Your task to perform on an android device: all mails in gmail Image 0: 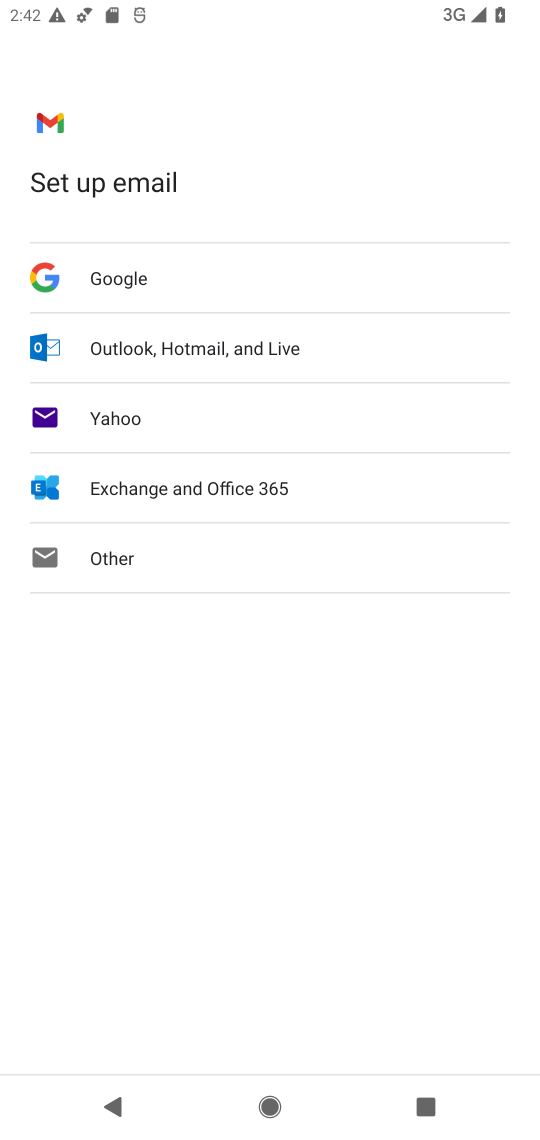
Step 0: press home button
Your task to perform on an android device: all mails in gmail Image 1: 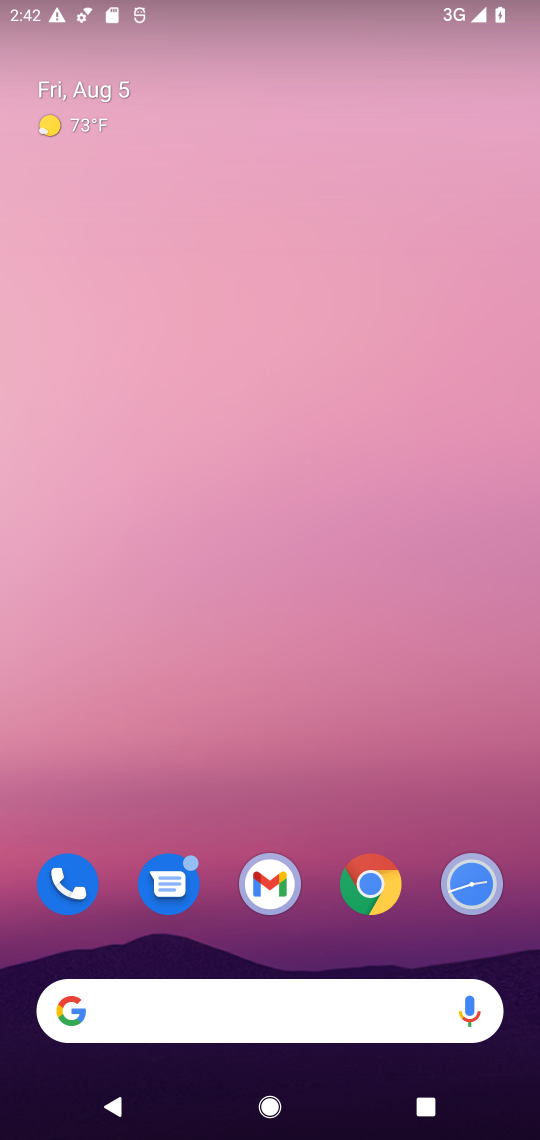
Step 1: drag from (441, 964) to (359, 27)
Your task to perform on an android device: all mails in gmail Image 2: 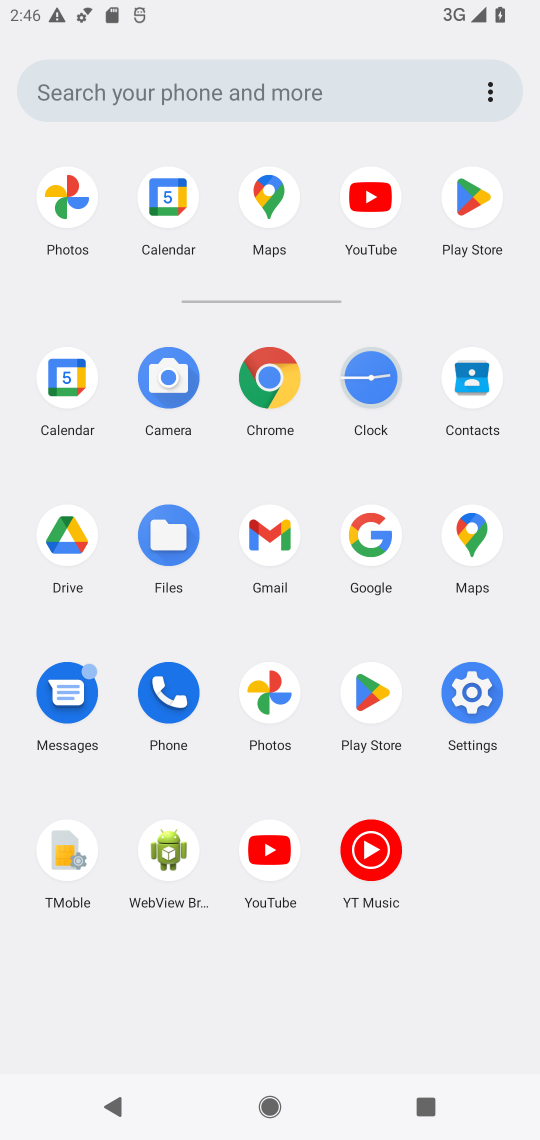
Step 2: click (267, 558)
Your task to perform on an android device: all mails in gmail Image 3: 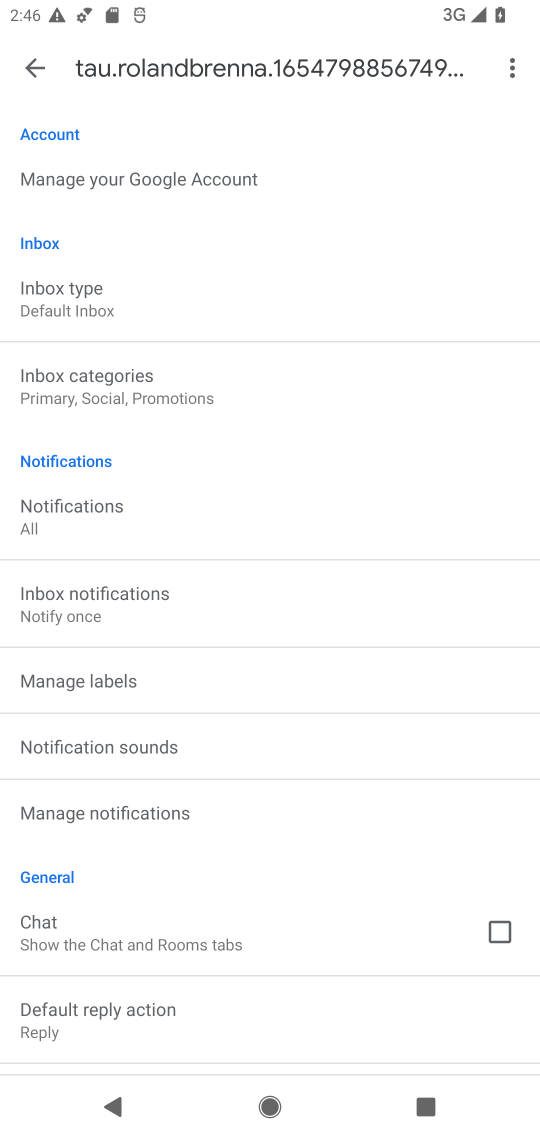
Step 3: press back button
Your task to perform on an android device: all mails in gmail Image 4: 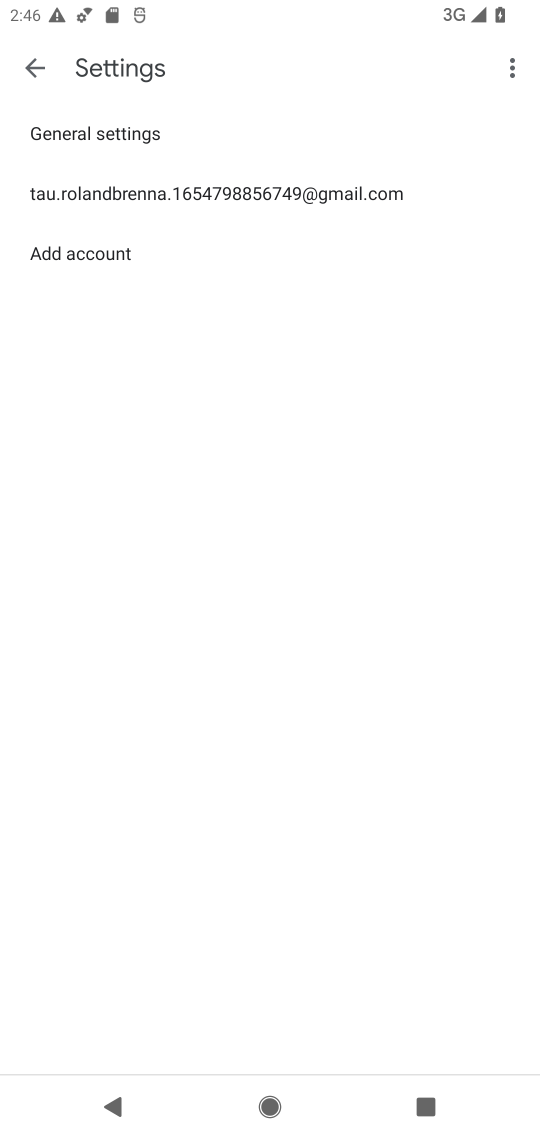
Step 4: press back button
Your task to perform on an android device: all mails in gmail Image 5: 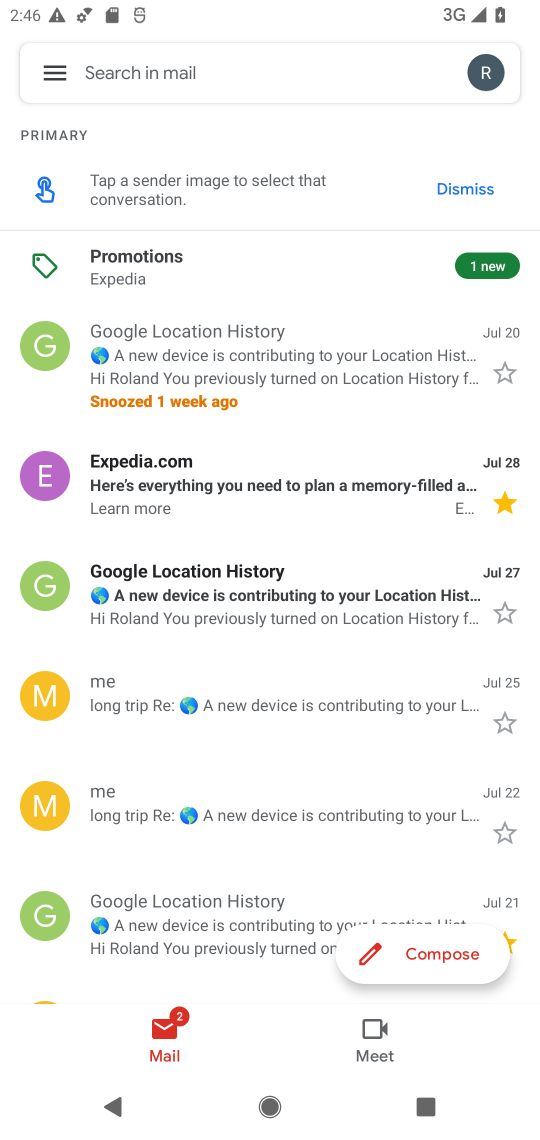
Step 5: click (40, 65)
Your task to perform on an android device: all mails in gmail Image 6: 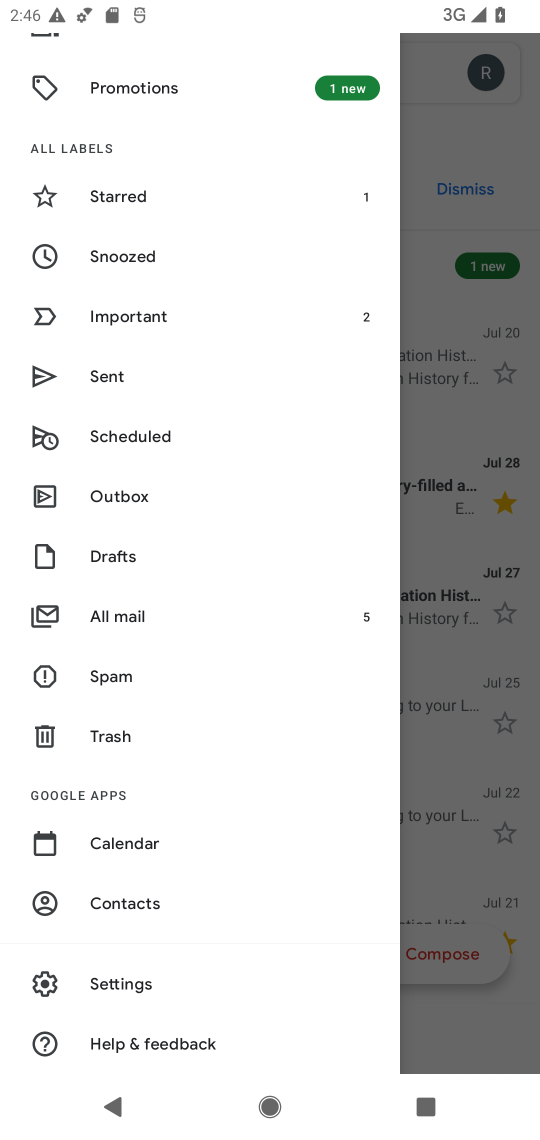
Step 6: click (150, 619)
Your task to perform on an android device: all mails in gmail Image 7: 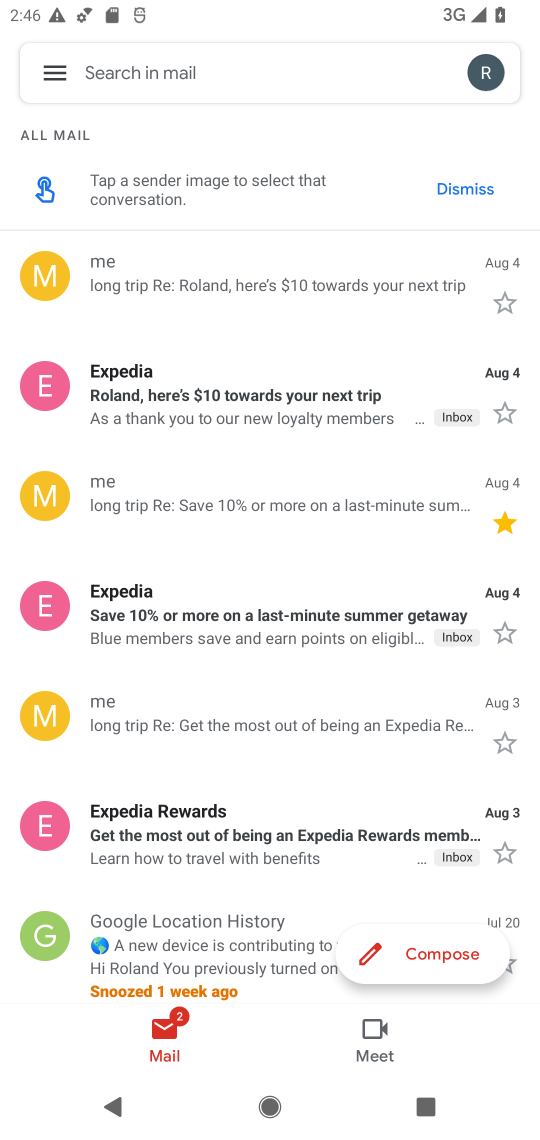
Step 7: task complete